Your task to perform on an android device: open app "Adobe Acrobat Reader" (install if not already installed) and enter user name: "nondescriptly@inbox.com" and password: "negating" Image 0: 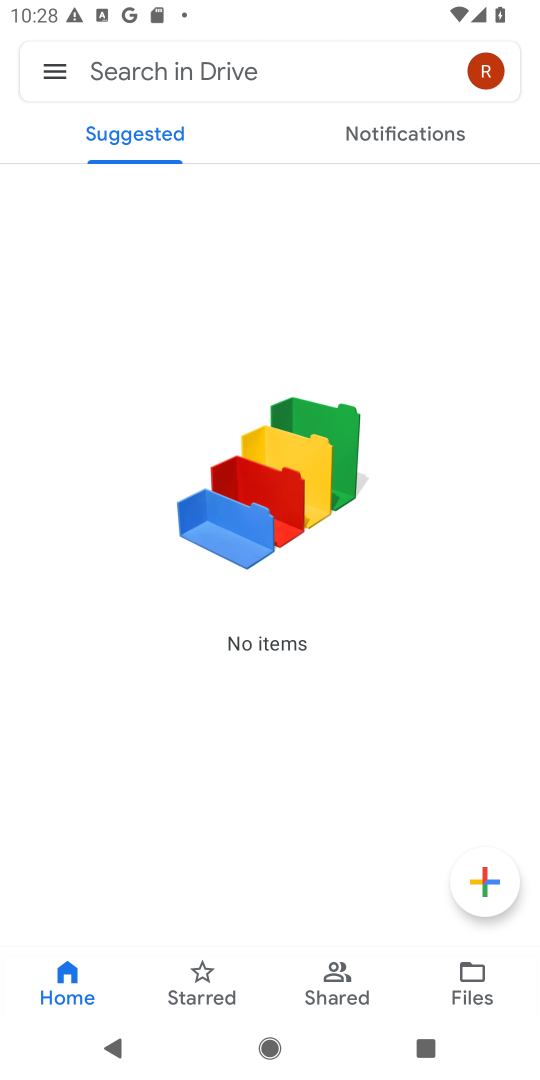
Step 0: press home button
Your task to perform on an android device: open app "Adobe Acrobat Reader" (install if not already installed) and enter user name: "nondescriptly@inbox.com" and password: "negating" Image 1: 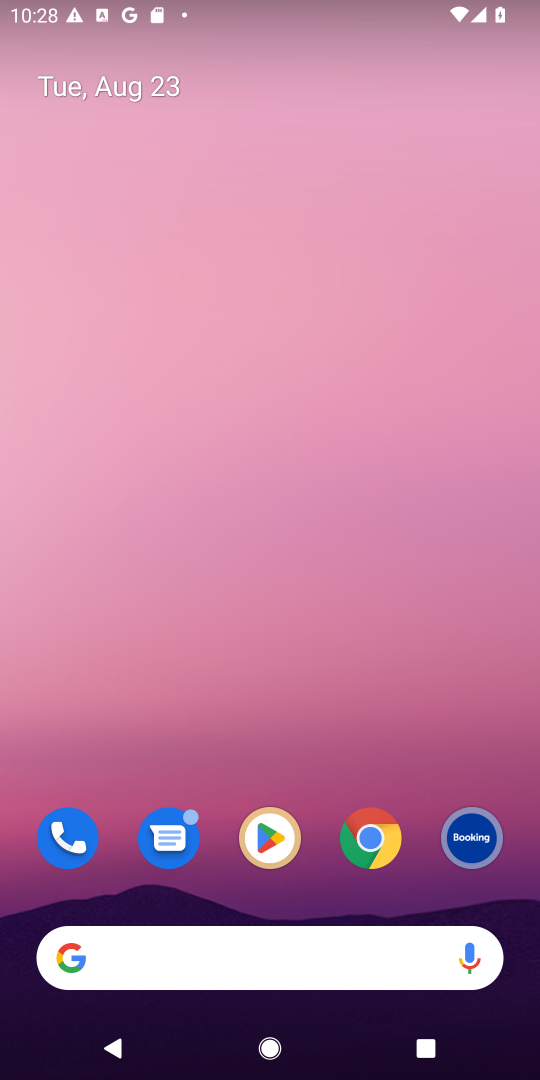
Step 1: click (253, 823)
Your task to perform on an android device: open app "Adobe Acrobat Reader" (install if not already installed) and enter user name: "nondescriptly@inbox.com" and password: "negating" Image 2: 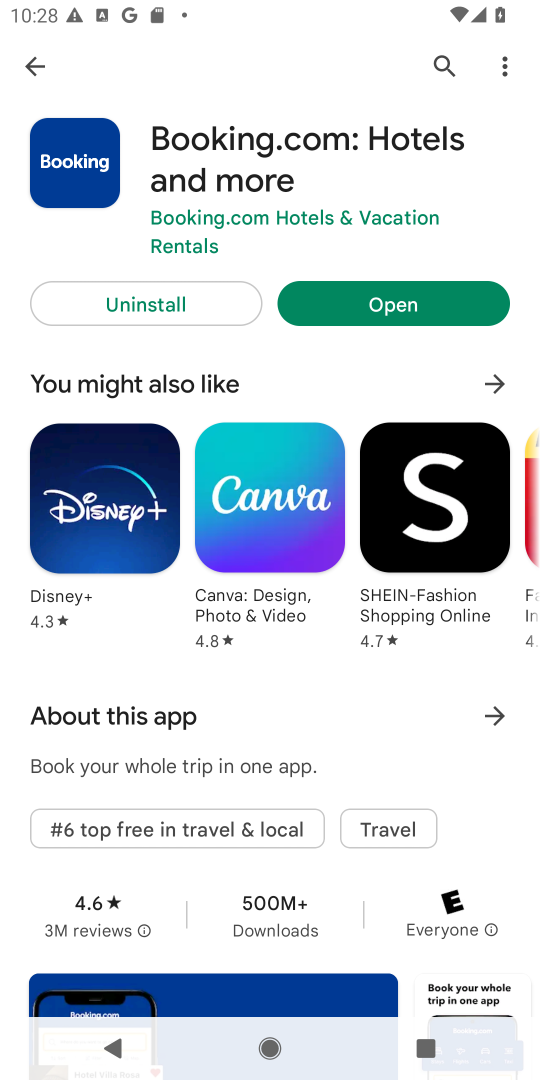
Step 2: click (433, 65)
Your task to perform on an android device: open app "Adobe Acrobat Reader" (install if not already installed) and enter user name: "nondescriptly@inbox.com" and password: "negating" Image 3: 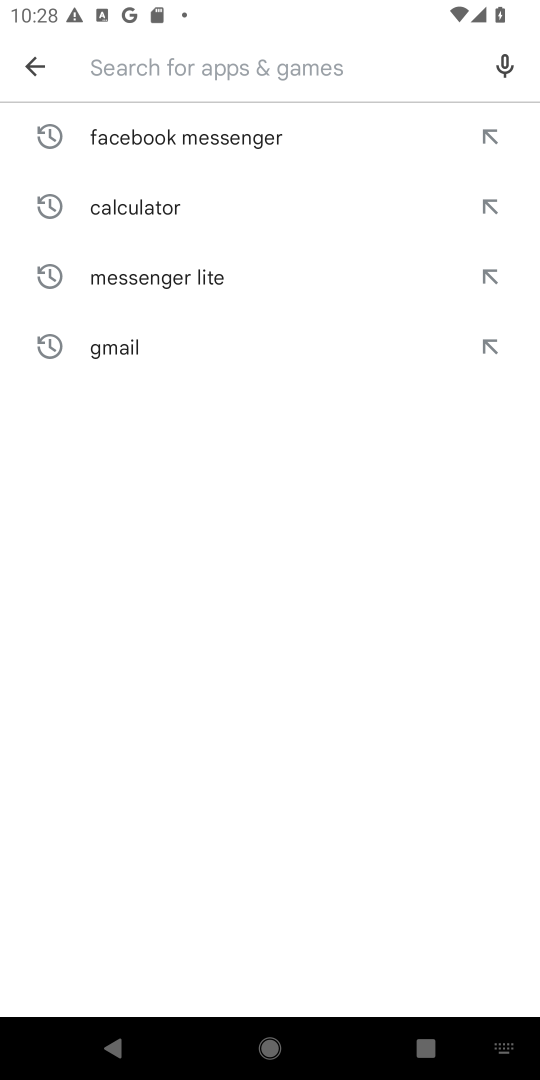
Step 3: type "Adobe Acrobat Reader"
Your task to perform on an android device: open app "Adobe Acrobat Reader" (install if not already installed) and enter user name: "nondescriptly@inbox.com" and password: "negating" Image 4: 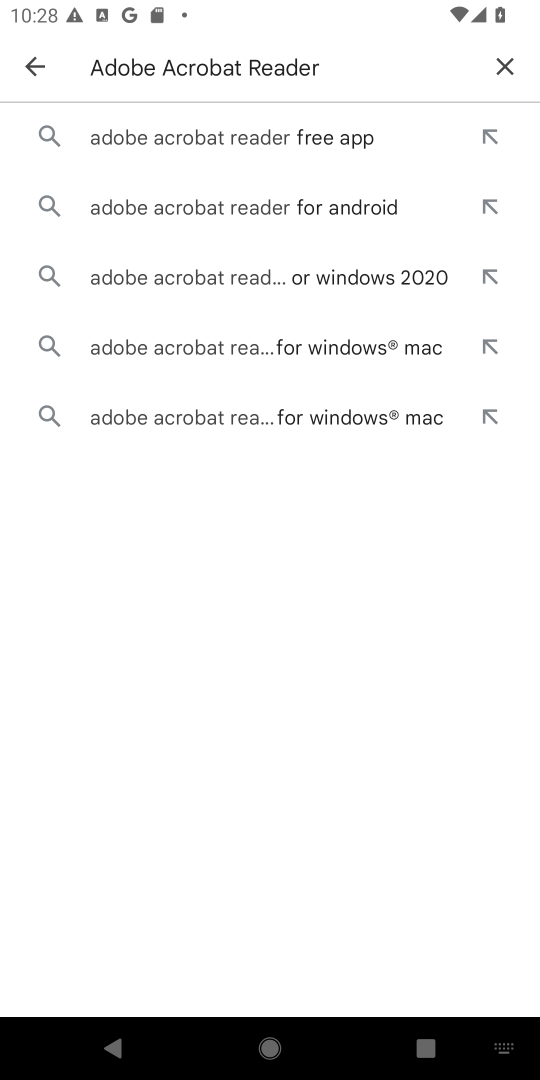
Step 4: type "Adobe Acrobat Reader"
Your task to perform on an android device: open app "Adobe Acrobat Reader" (install if not already installed) and enter user name: "nondescriptly@inbox.com" and password: "negating" Image 5: 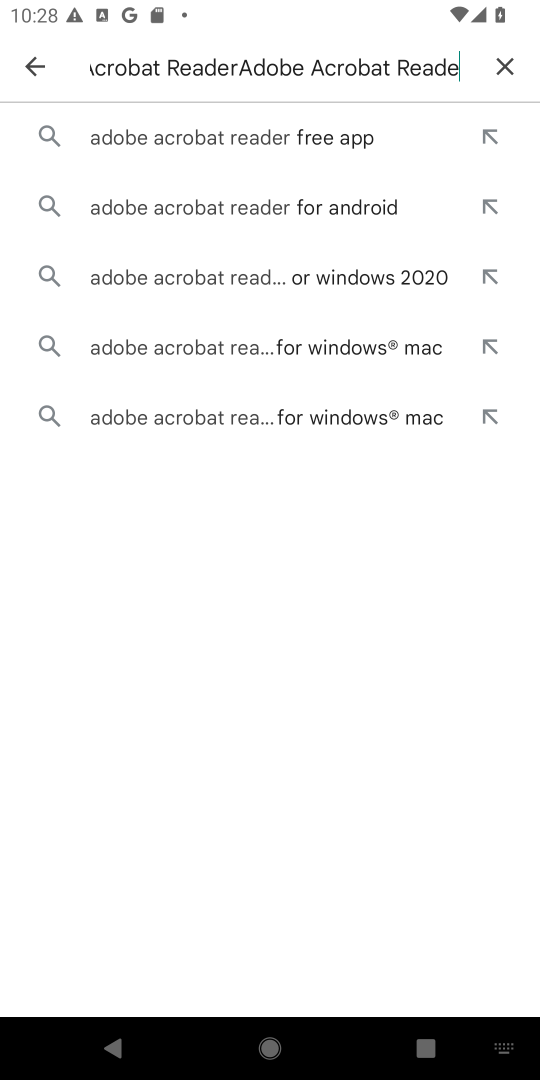
Step 5: type ""
Your task to perform on an android device: open app "Adobe Acrobat Reader" (install if not already installed) and enter user name: "nondescriptly@inbox.com" and password: "negating" Image 6: 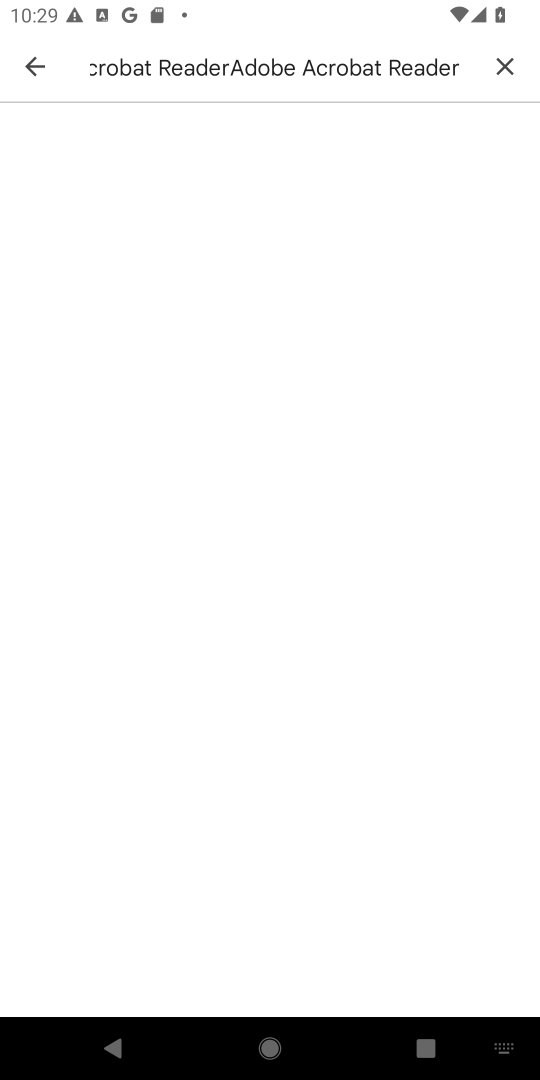
Step 6: task complete